Your task to perform on an android device: When is my next meeting? Image 0: 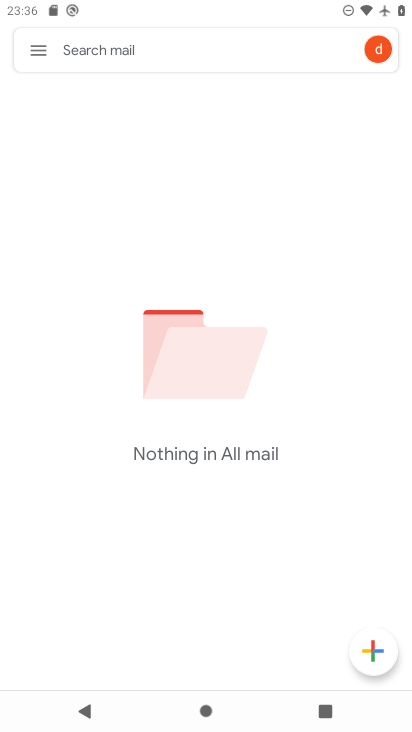
Step 0: press home button
Your task to perform on an android device: When is my next meeting? Image 1: 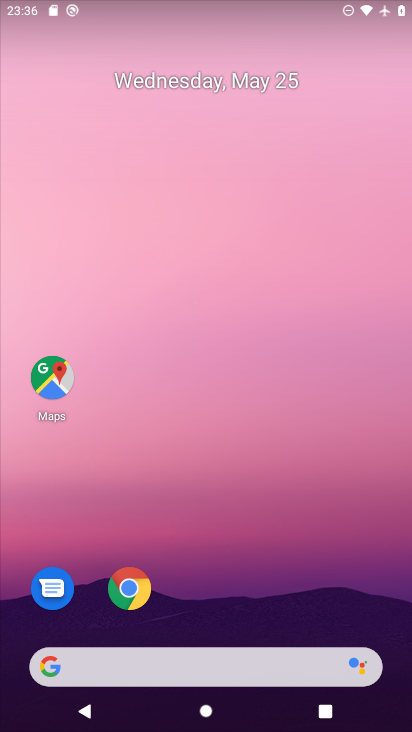
Step 1: drag from (253, 449) to (269, 187)
Your task to perform on an android device: When is my next meeting? Image 2: 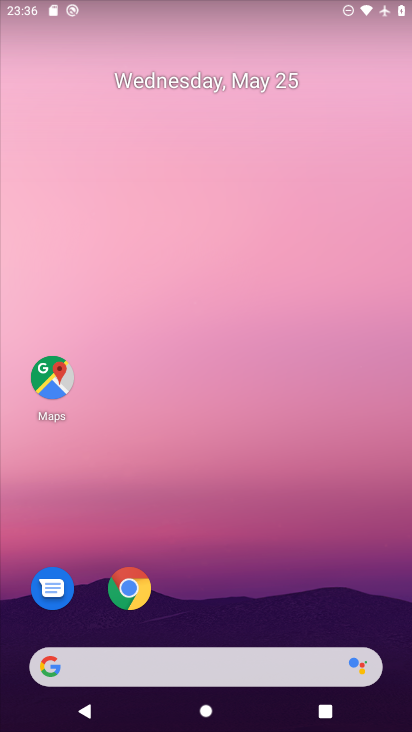
Step 2: drag from (234, 525) to (297, 111)
Your task to perform on an android device: When is my next meeting? Image 3: 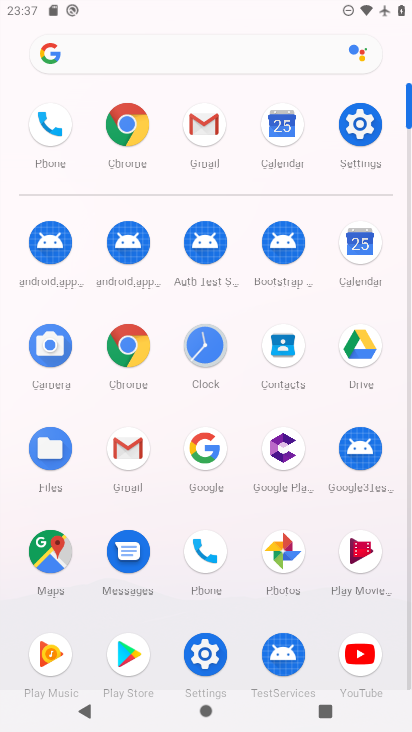
Step 3: click (291, 131)
Your task to perform on an android device: When is my next meeting? Image 4: 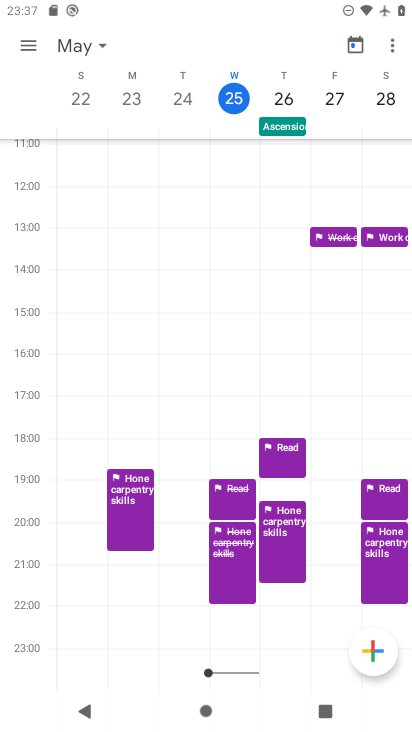
Step 4: task complete